Your task to perform on an android device: add a contact in the contacts app Image 0: 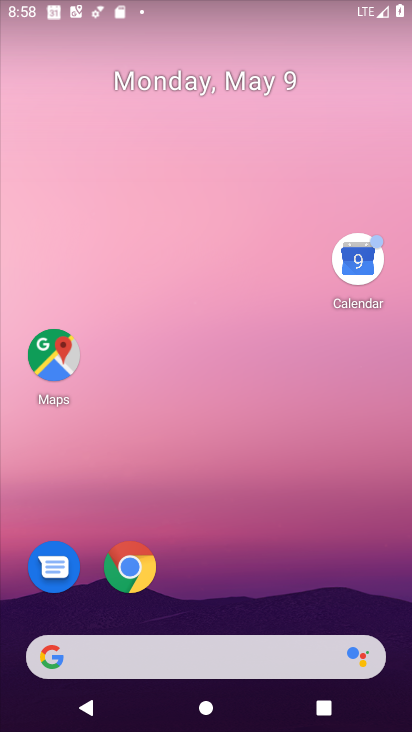
Step 0: drag from (192, 602) to (243, 89)
Your task to perform on an android device: add a contact in the contacts app Image 1: 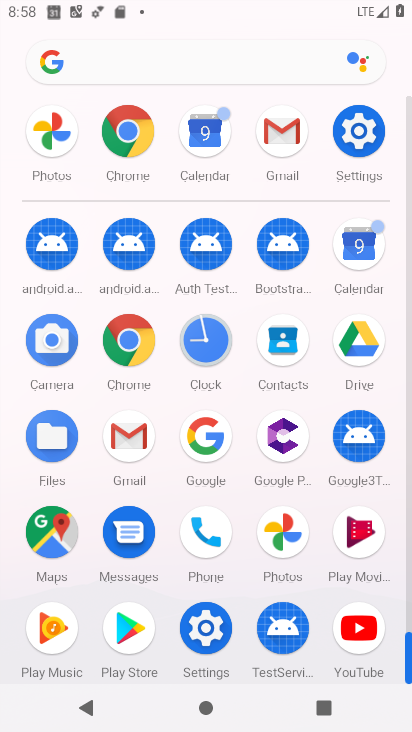
Step 1: click (274, 350)
Your task to perform on an android device: add a contact in the contacts app Image 2: 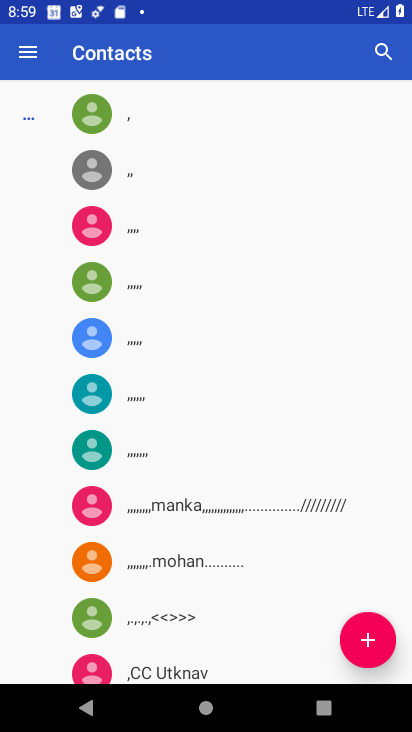
Step 2: drag from (240, 641) to (296, 220)
Your task to perform on an android device: add a contact in the contacts app Image 3: 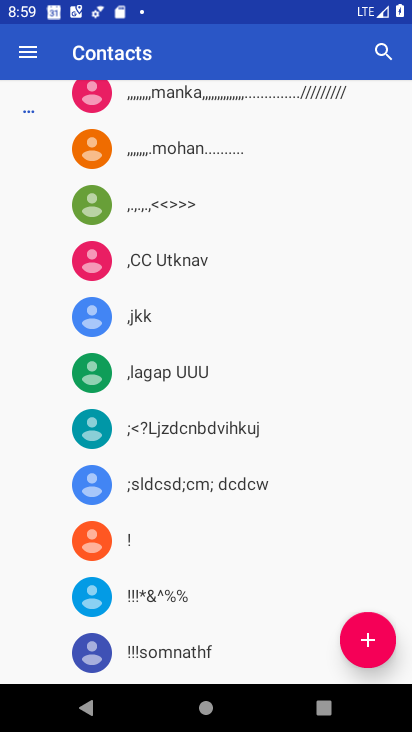
Step 3: drag from (210, 643) to (238, 183)
Your task to perform on an android device: add a contact in the contacts app Image 4: 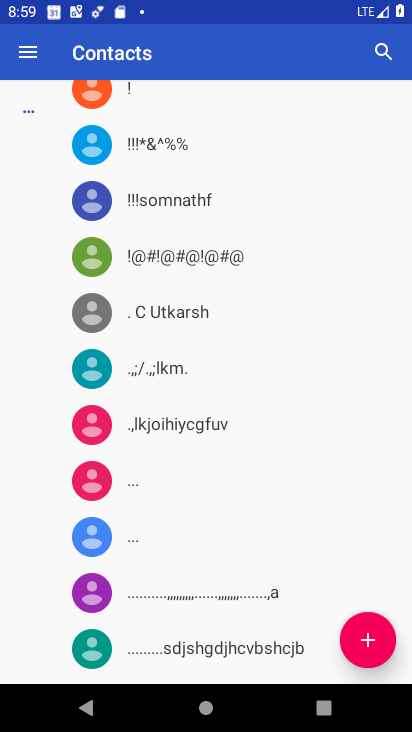
Step 4: drag from (211, 511) to (270, 217)
Your task to perform on an android device: add a contact in the contacts app Image 5: 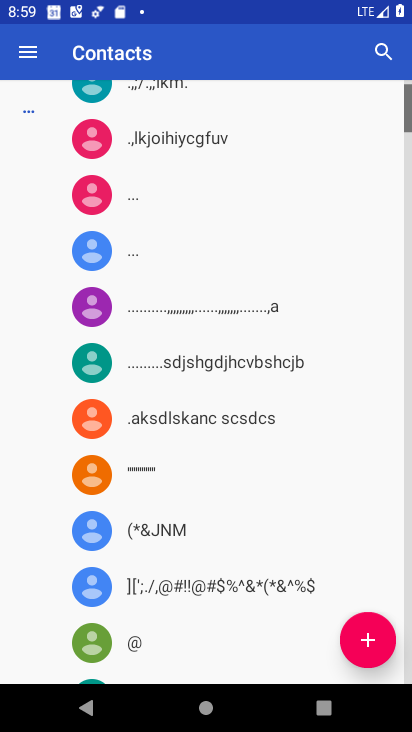
Step 5: drag from (205, 500) to (271, 220)
Your task to perform on an android device: add a contact in the contacts app Image 6: 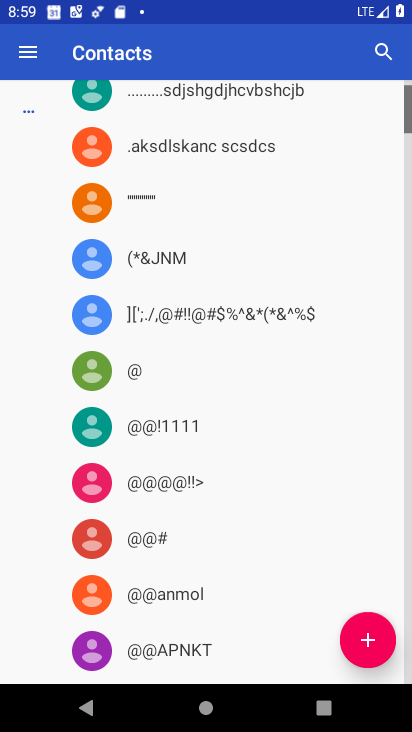
Step 6: drag from (258, 177) to (317, 730)
Your task to perform on an android device: add a contact in the contacts app Image 7: 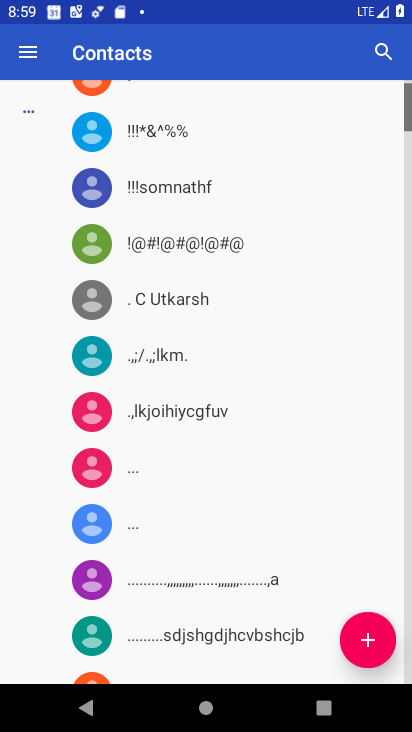
Step 7: click (361, 638)
Your task to perform on an android device: add a contact in the contacts app Image 8: 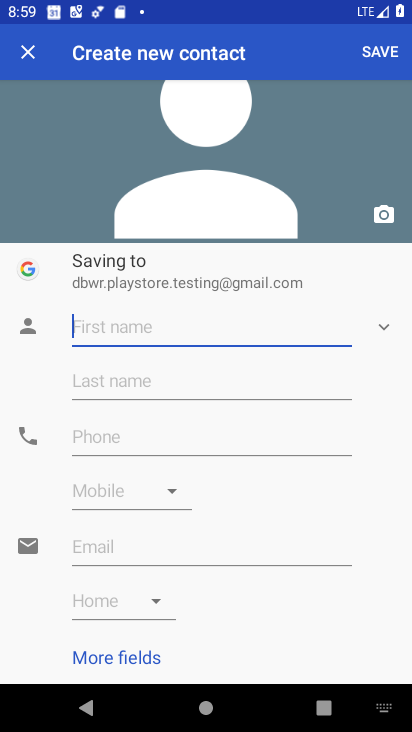
Step 8: click (112, 324)
Your task to perform on an android device: add a contact in the contacts app Image 9: 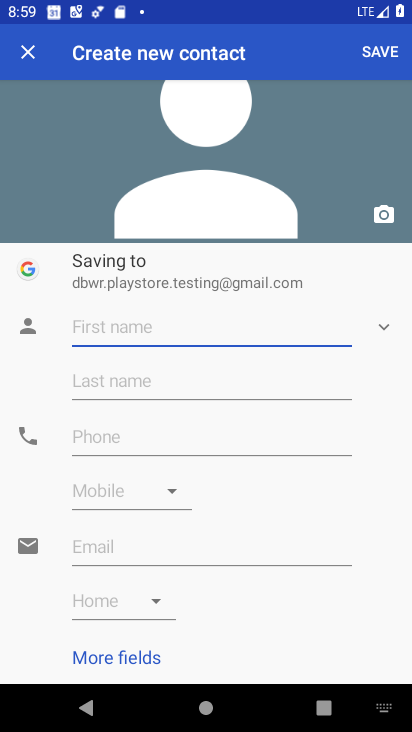
Step 9: type "nhn"
Your task to perform on an android device: add a contact in the contacts app Image 10: 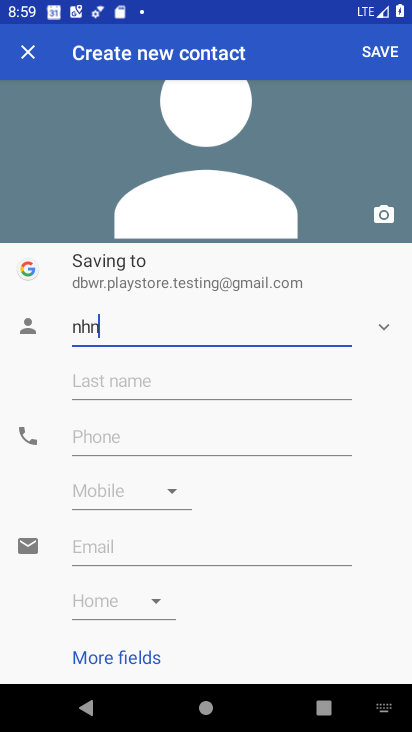
Step 10: click (379, 41)
Your task to perform on an android device: add a contact in the contacts app Image 11: 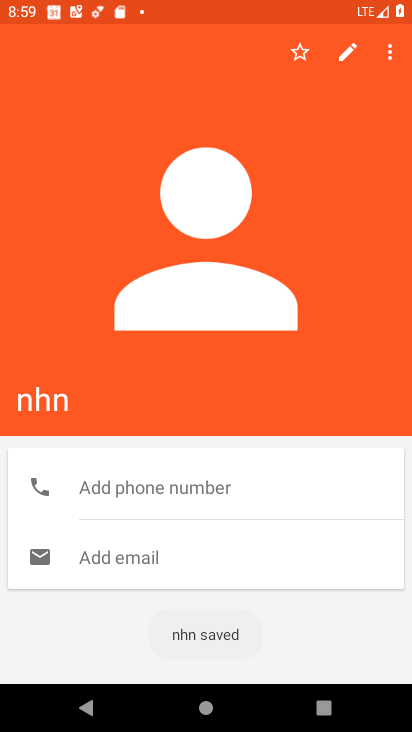
Step 11: task complete